Your task to perform on an android device: turn on translation in the chrome app Image 0: 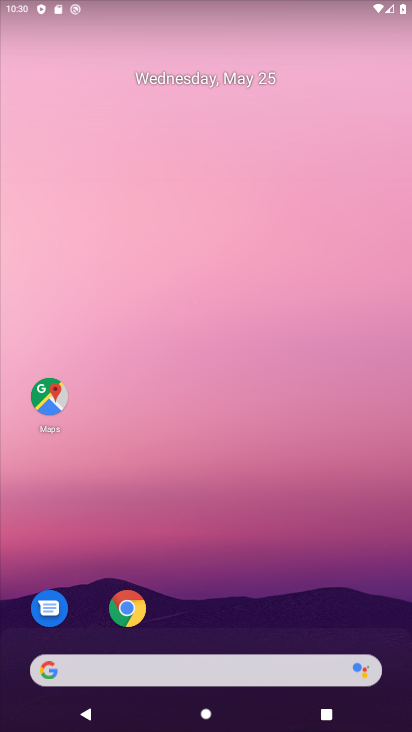
Step 0: click (120, 614)
Your task to perform on an android device: turn on translation in the chrome app Image 1: 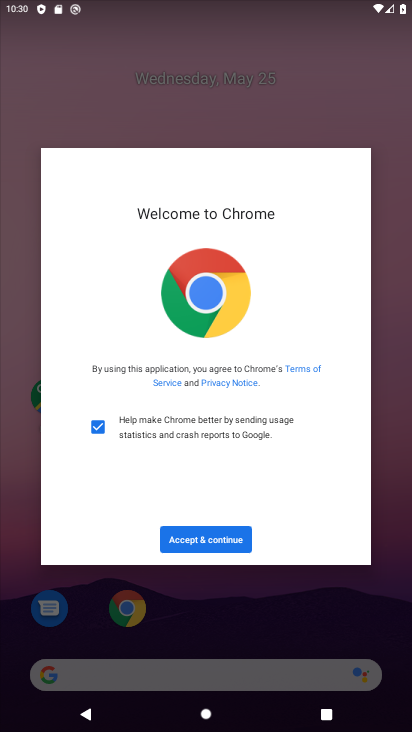
Step 1: click (236, 535)
Your task to perform on an android device: turn on translation in the chrome app Image 2: 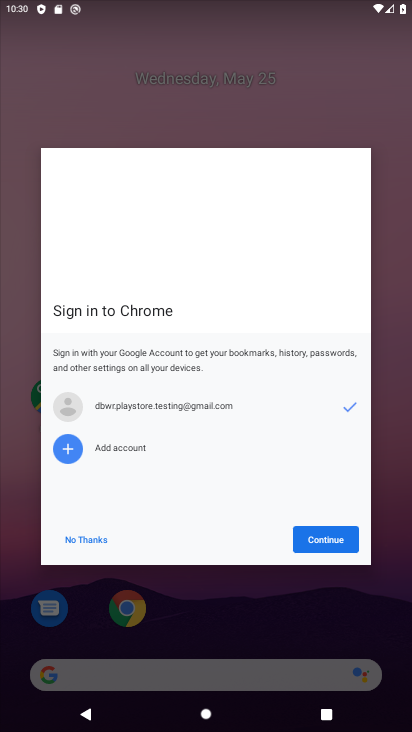
Step 2: click (326, 538)
Your task to perform on an android device: turn on translation in the chrome app Image 3: 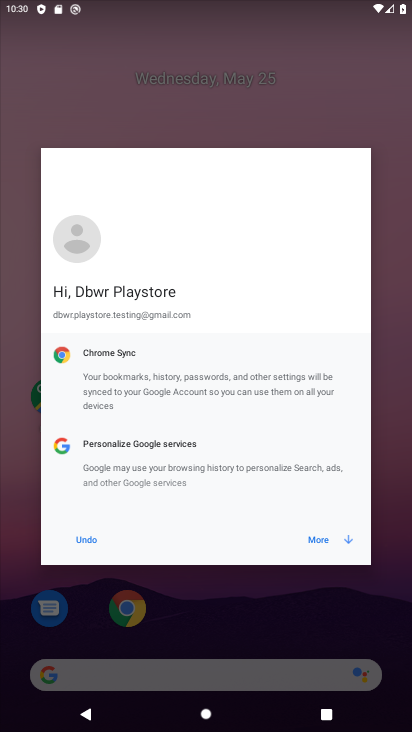
Step 3: click (326, 538)
Your task to perform on an android device: turn on translation in the chrome app Image 4: 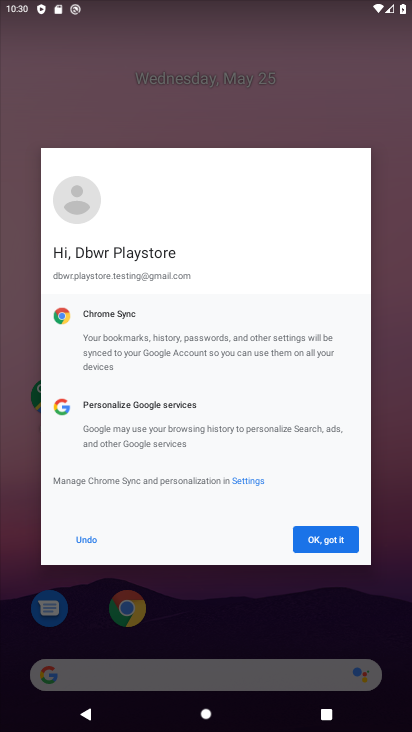
Step 4: click (326, 538)
Your task to perform on an android device: turn on translation in the chrome app Image 5: 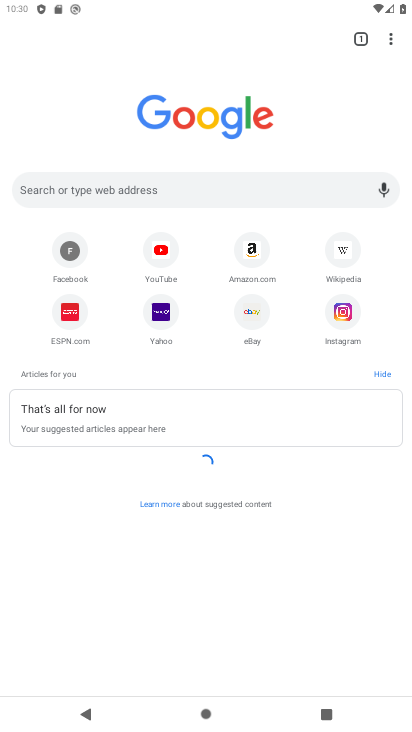
Step 5: click (386, 32)
Your task to perform on an android device: turn on translation in the chrome app Image 6: 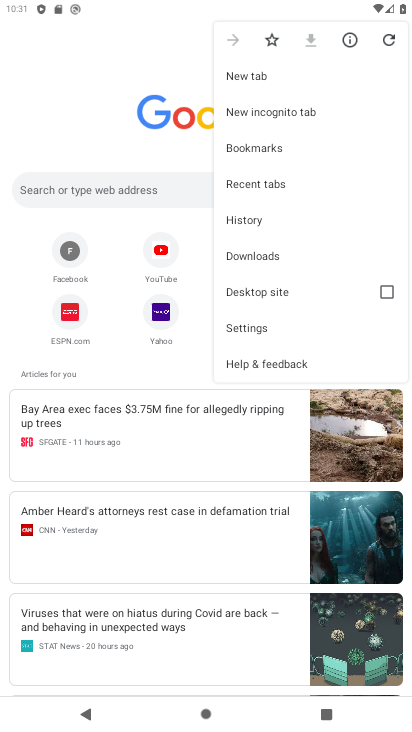
Step 6: click (299, 317)
Your task to perform on an android device: turn on translation in the chrome app Image 7: 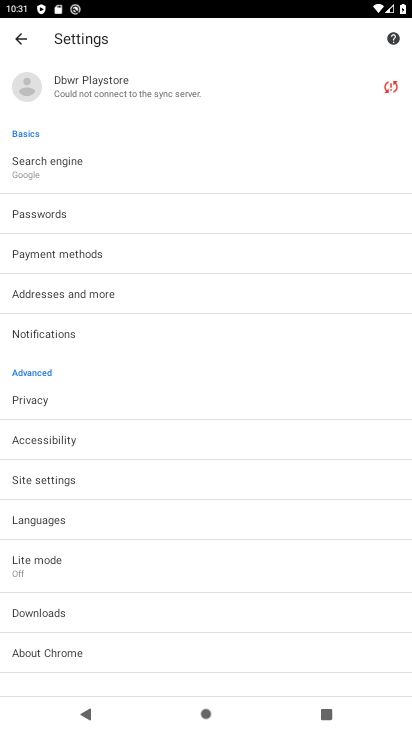
Step 7: click (87, 524)
Your task to perform on an android device: turn on translation in the chrome app Image 8: 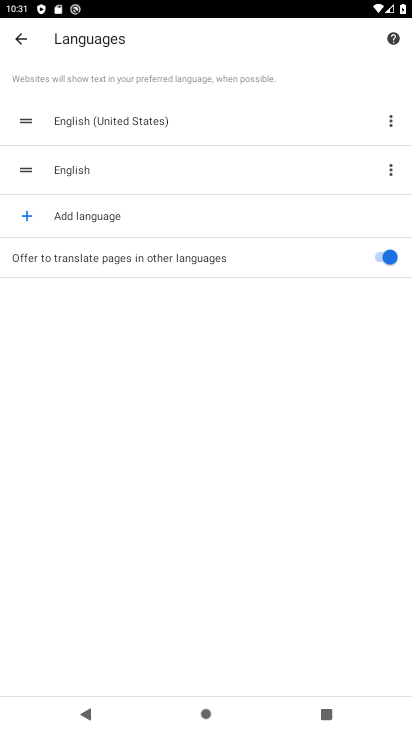
Step 8: task complete